Your task to perform on an android device: Open battery settings Image 0: 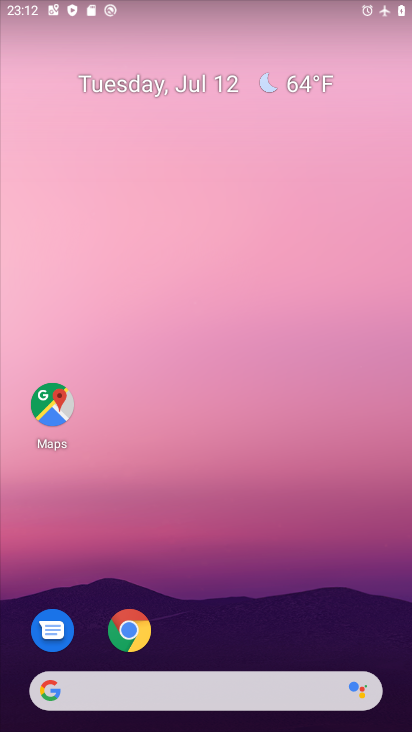
Step 0: drag from (254, 651) to (229, 83)
Your task to perform on an android device: Open battery settings Image 1: 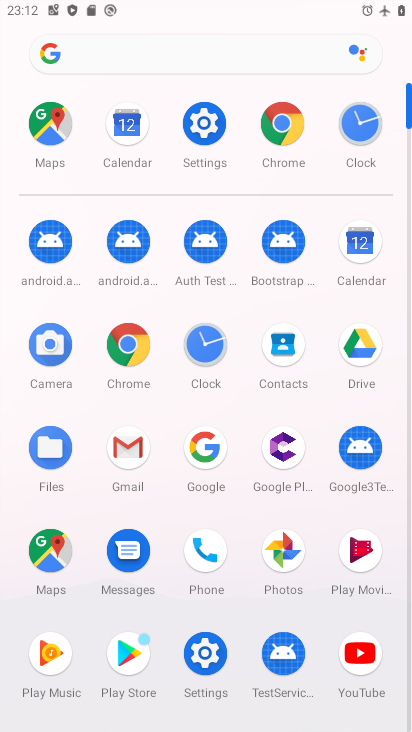
Step 1: click (203, 123)
Your task to perform on an android device: Open battery settings Image 2: 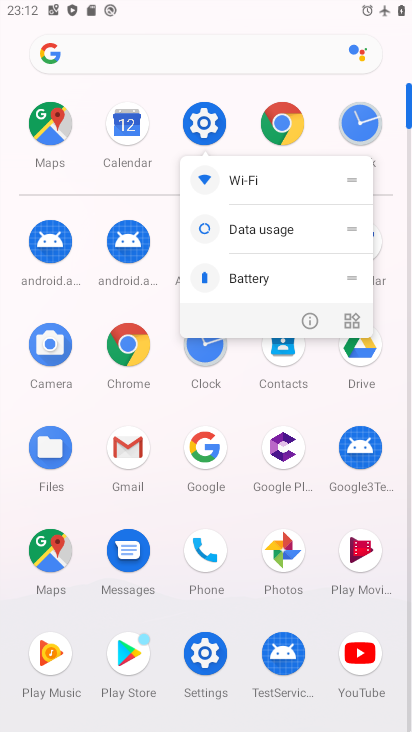
Step 2: click (203, 123)
Your task to perform on an android device: Open battery settings Image 3: 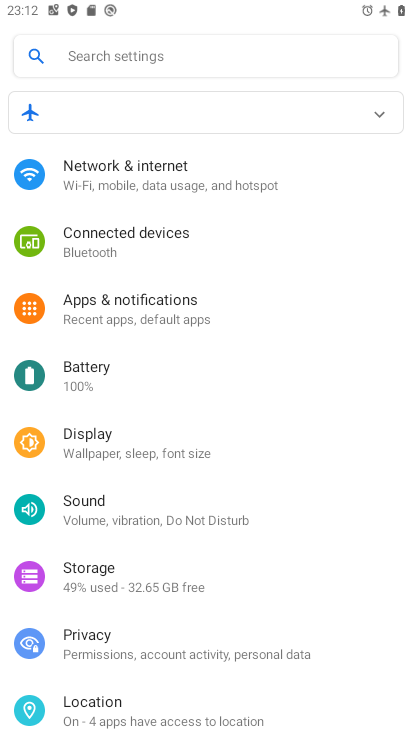
Step 3: click (92, 381)
Your task to perform on an android device: Open battery settings Image 4: 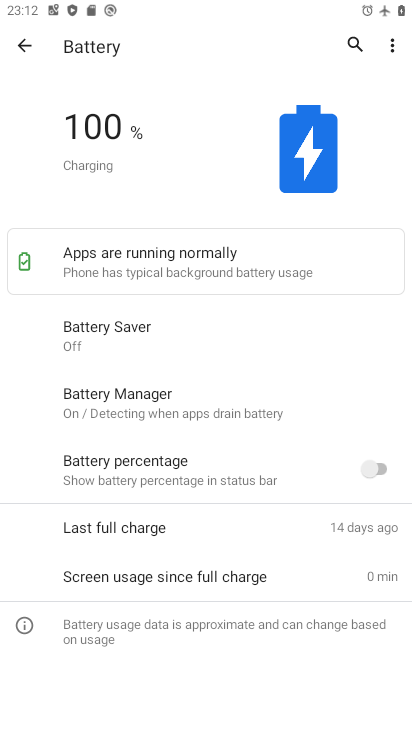
Step 4: task complete